Your task to perform on an android device: Open calendar and show me the fourth week of next month Image 0: 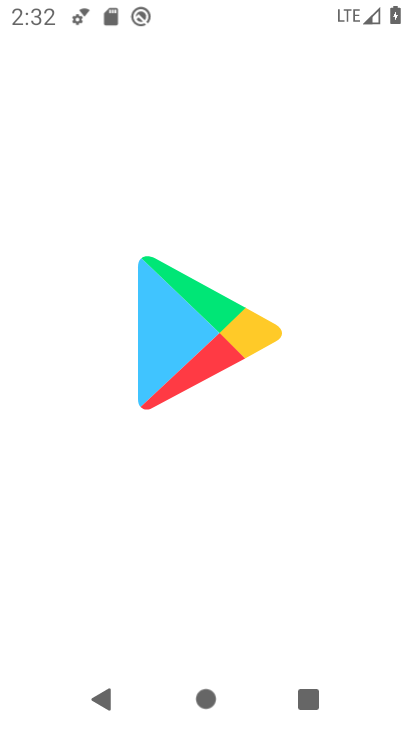
Step 0: press home button
Your task to perform on an android device: Open calendar and show me the fourth week of next month Image 1: 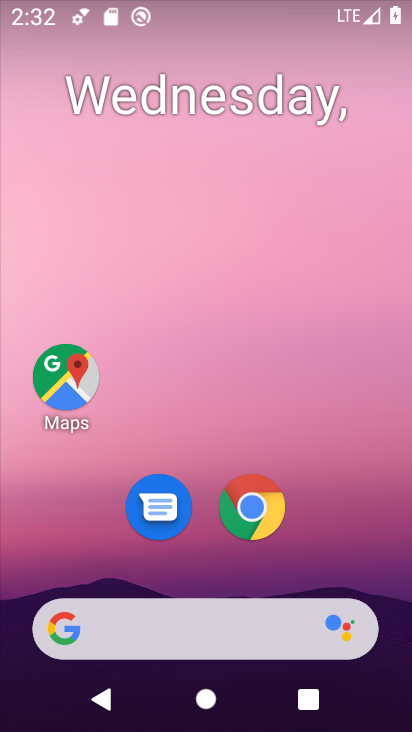
Step 1: drag from (293, 446) to (261, 67)
Your task to perform on an android device: Open calendar and show me the fourth week of next month Image 2: 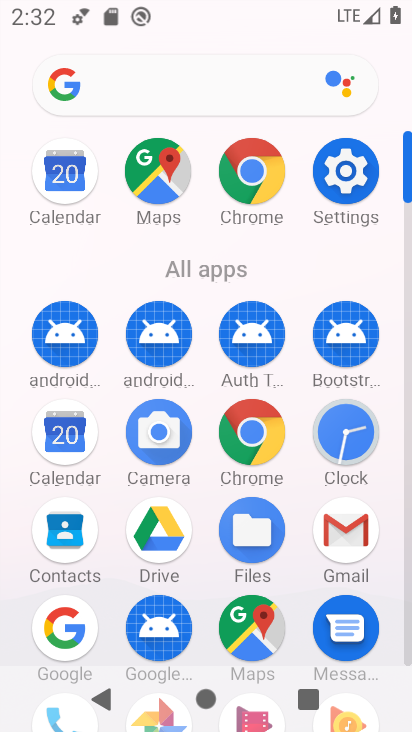
Step 2: click (57, 450)
Your task to perform on an android device: Open calendar and show me the fourth week of next month Image 3: 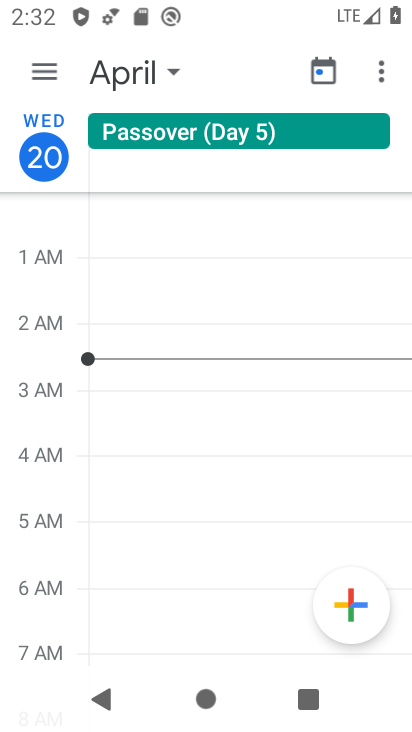
Step 3: click (157, 71)
Your task to perform on an android device: Open calendar and show me the fourth week of next month Image 4: 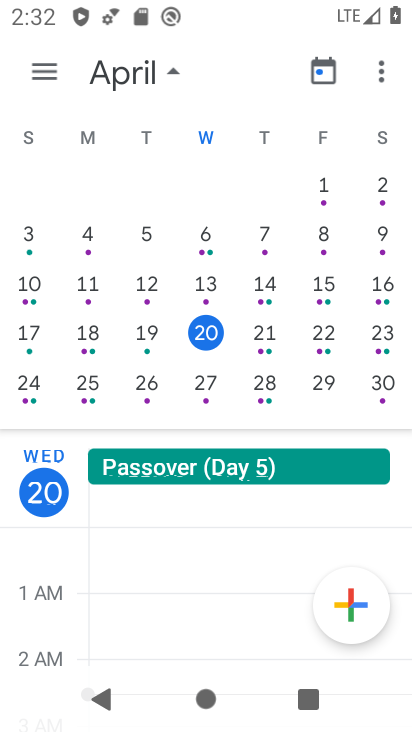
Step 4: drag from (369, 332) to (0, 313)
Your task to perform on an android device: Open calendar and show me the fourth week of next month Image 5: 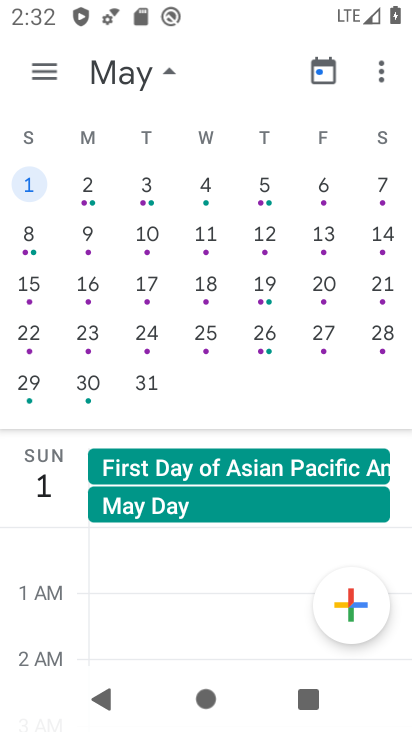
Step 5: click (32, 325)
Your task to perform on an android device: Open calendar and show me the fourth week of next month Image 6: 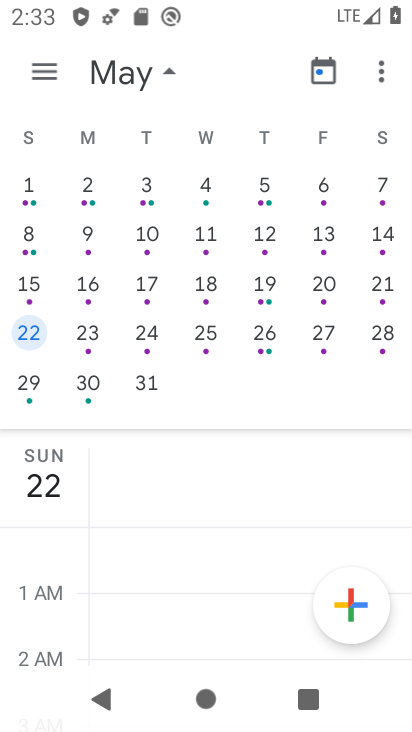
Step 6: click (36, 70)
Your task to perform on an android device: Open calendar and show me the fourth week of next month Image 7: 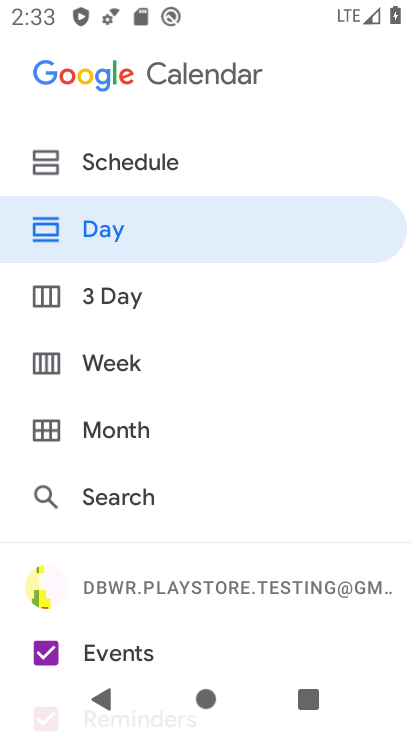
Step 7: click (109, 369)
Your task to perform on an android device: Open calendar and show me the fourth week of next month Image 8: 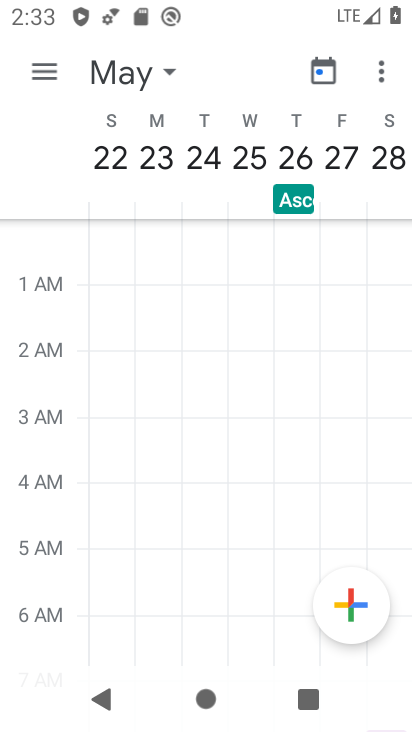
Step 8: task complete